Your task to perform on an android device: Open Youtube and go to "Your channel" Image 0: 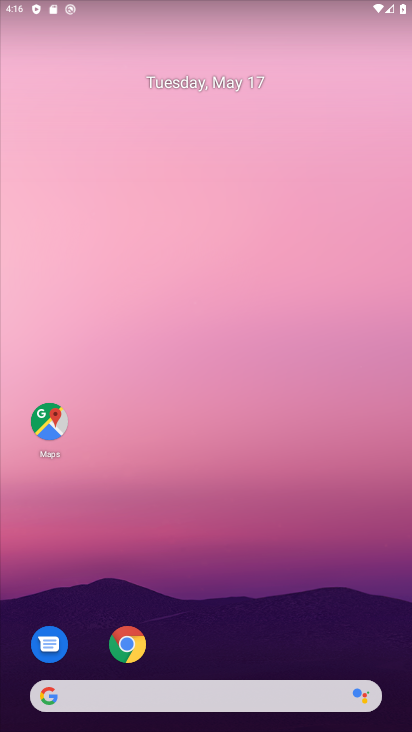
Step 0: drag from (237, 614) to (169, 115)
Your task to perform on an android device: Open Youtube and go to "Your channel" Image 1: 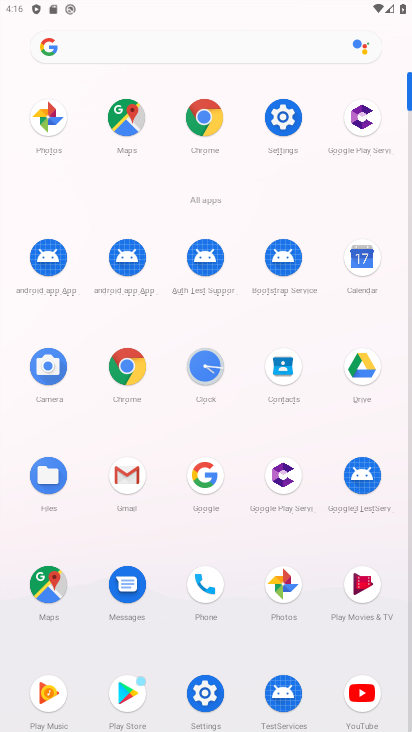
Step 1: click (373, 688)
Your task to perform on an android device: Open Youtube and go to "Your channel" Image 2: 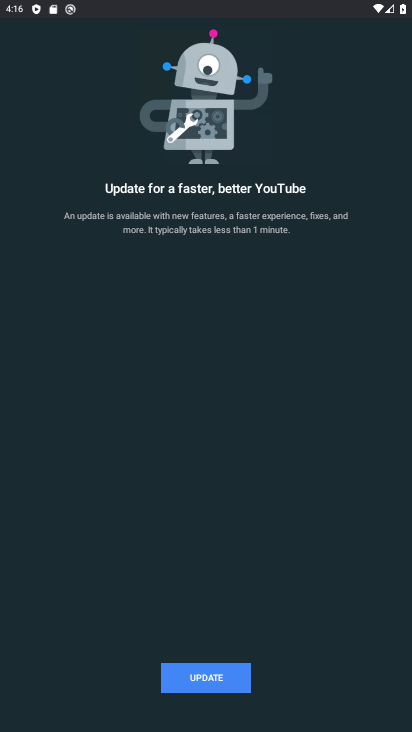
Step 2: click (231, 688)
Your task to perform on an android device: Open Youtube and go to "Your channel" Image 3: 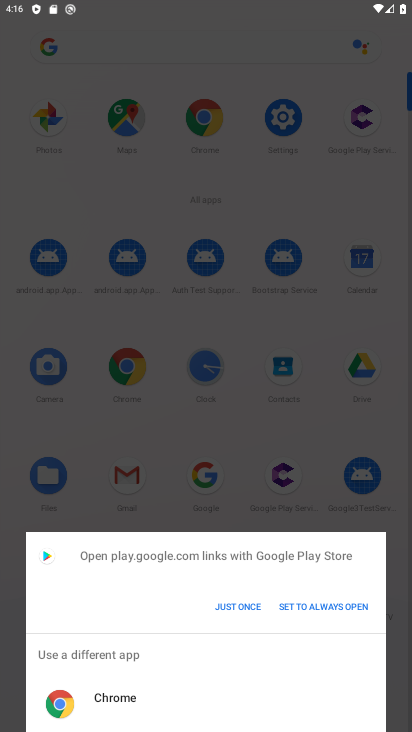
Step 3: click (176, 551)
Your task to perform on an android device: Open Youtube and go to "Your channel" Image 4: 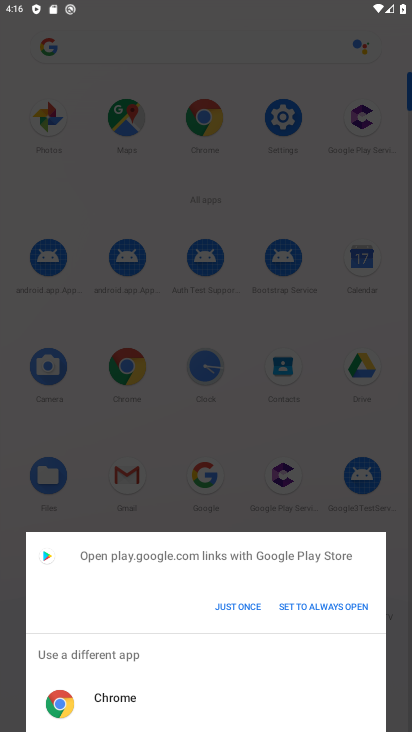
Step 4: click (235, 607)
Your task to perform on an android device: Open Youtube and go to "Your channel" Image 5: 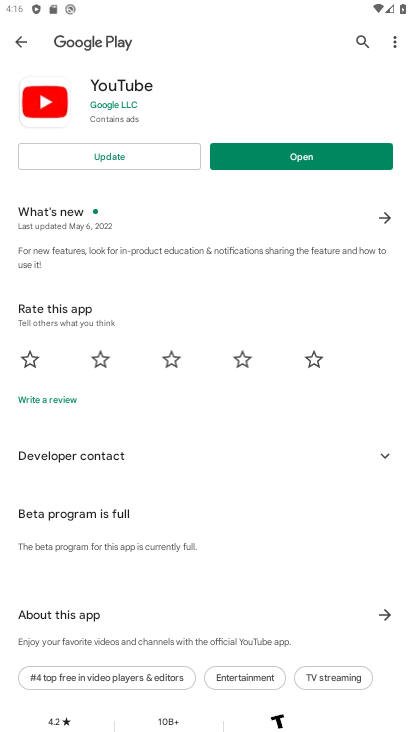
Step 5: click (163, 160)
Your task to perform on an android device: Open Youtube and go to "Your channel" Image 6: 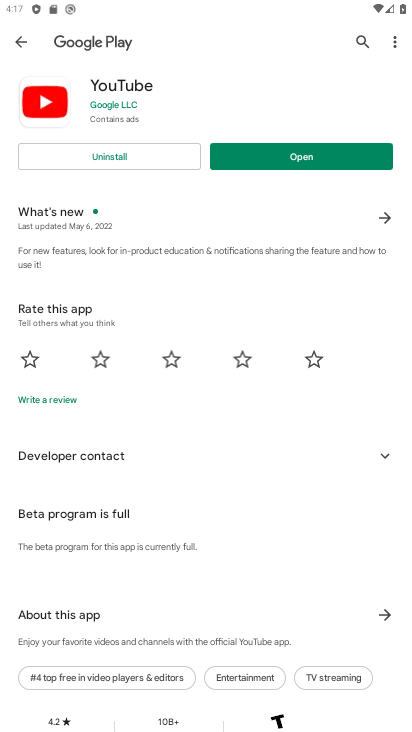
Step 6: click (288, 159)
Your task to perform on an android device: Open Youtube and go to "Your channel" Image 7: 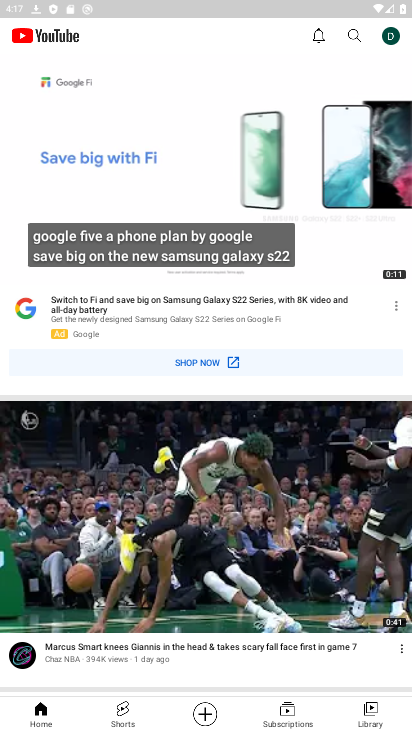
Step 7: click (387, 35)
Your task to perform on an android device: Open Youtube and go to "Your channel" Image 8: 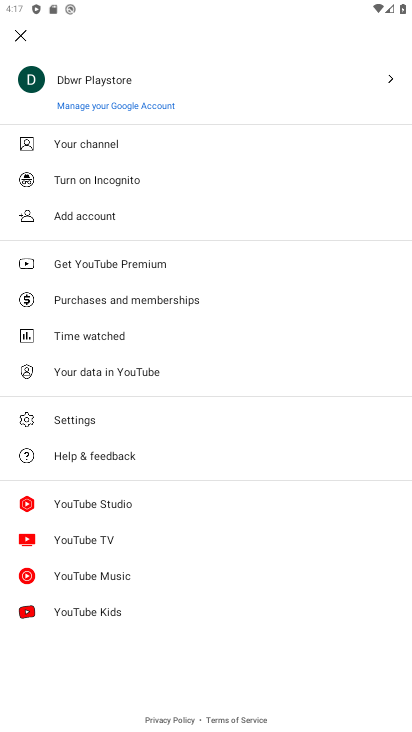
Step 8: click (94, 79)
Your task to perform on an android device: Open Youtube and go to "Your channel" Image 9: 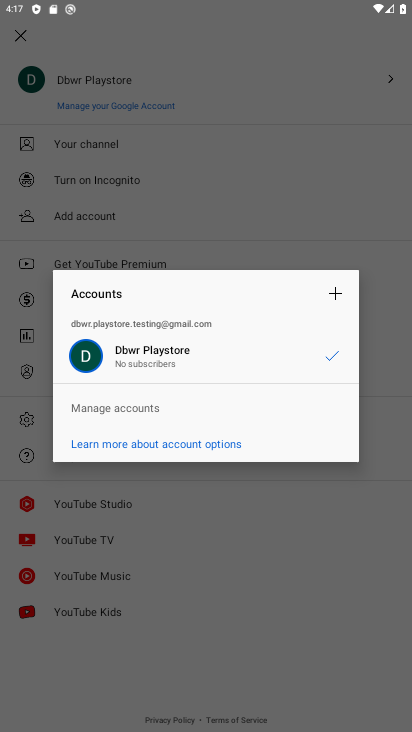
Step 9: task complete